Your task to perform on an android device: turn on the 24-hour format for clock Image 0: 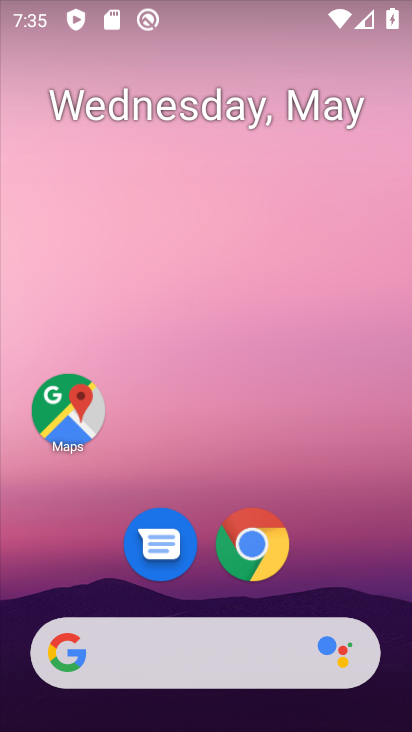
Step 0: drag from (206, 581) to (223, 67)
Your task to perform on an android device: turn on the 24-hour format for clock Image 1: 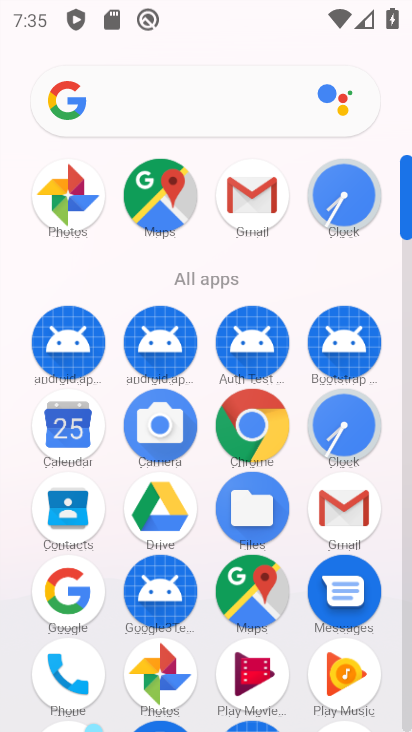
Step 1: click (344, 163)
Your task to perform on an android device: turn on the 24-hour format for clock Image 2: 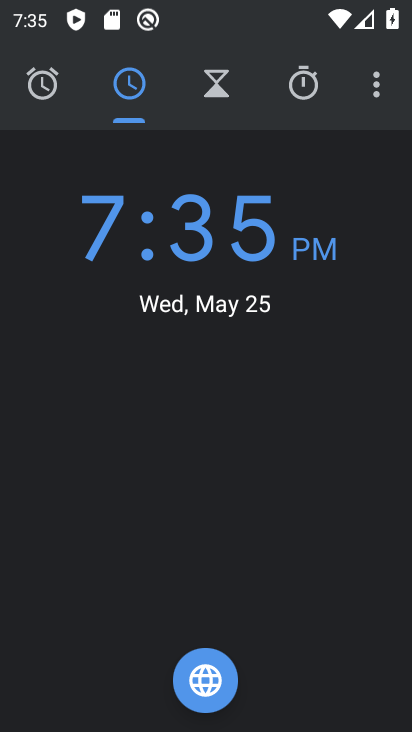
Step 2: click (388, 73)
Your task to perform on an android device: turn on the 24-hour format for clock Image 3: 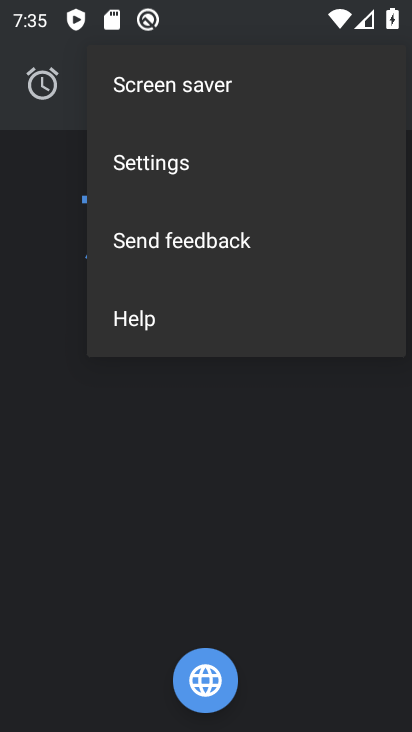
Step 3: click (241, 159)
Your task to perform on an android device: turn on the 24-hour format for clock Image 4: 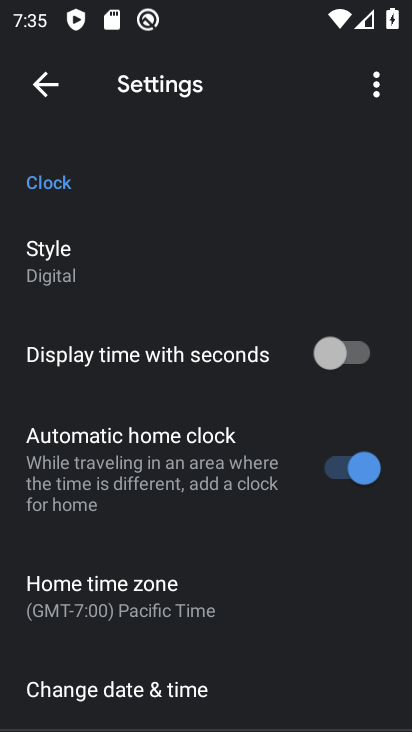
Step 4: click (118, 693)
Your task to perform on an android device: turn on the 24-hour format for clock Image 5: 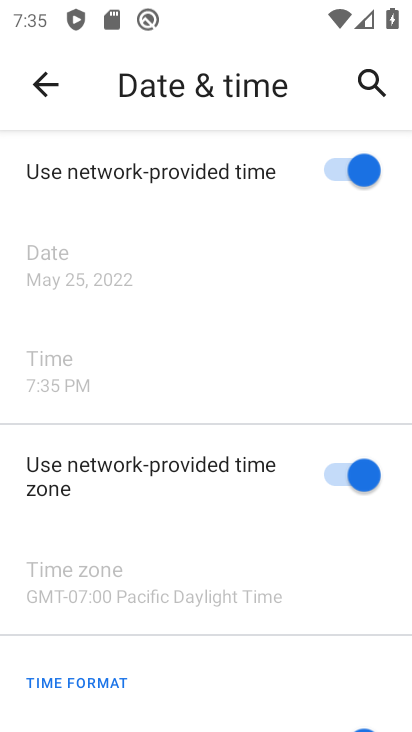
Step 5: drag from (155, 591) to (272, 120)
Your task to perform on an android device: turn on the 24-hour format for clock Image 6: 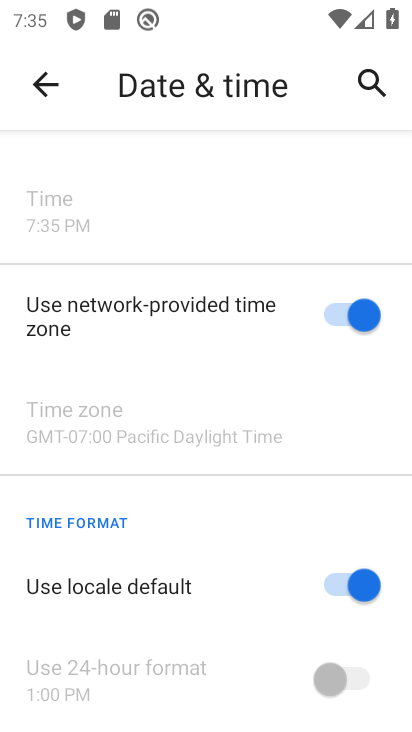
Step 6: click (349, 582)
Your task to perform on an android device: turn on the 24-hour format for clock Image 7: 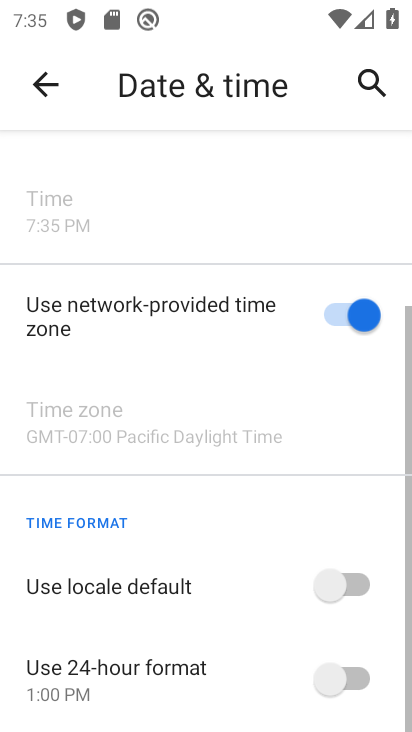
Step 7: click (352, 679)
Your task to perform on an android device: turn on the 24-hour format for clock Image 8: 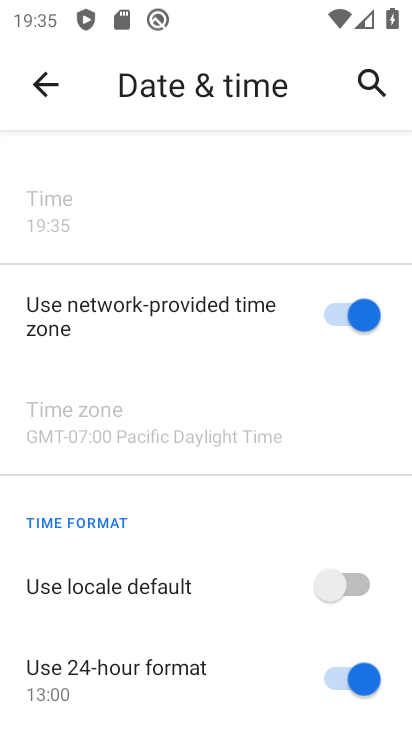
Step 8: task complete